Your task to perform on an android device: Show me recent news Image 0: 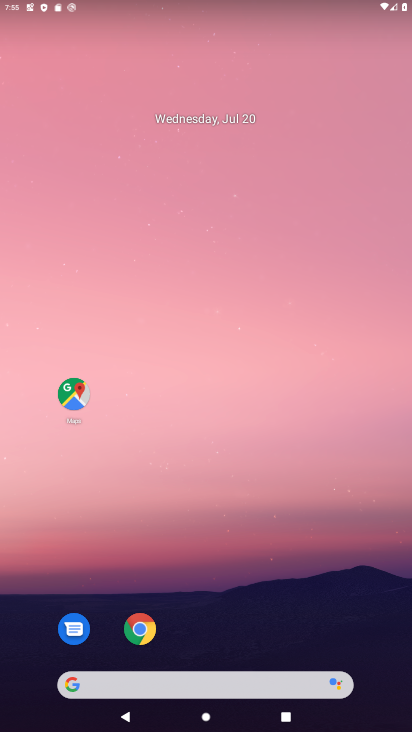
Step 0: drag from (185, 645) to (179, 169)
Your task to perform on an android device: Show me recent news Image 1: 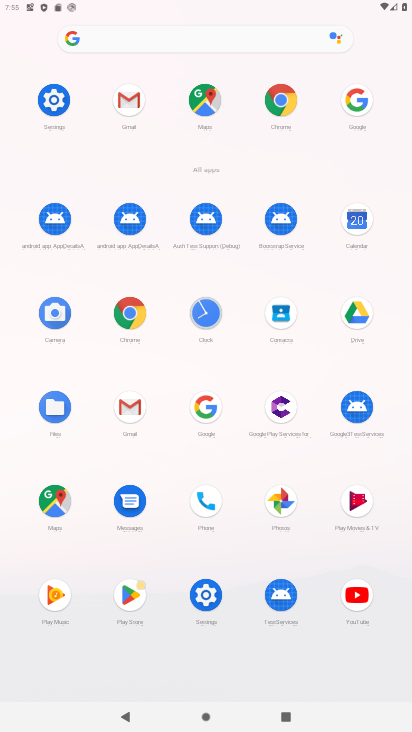
Step 1: click (195, 418)
Your task to perform on an android device: Show me recent news Image 2: 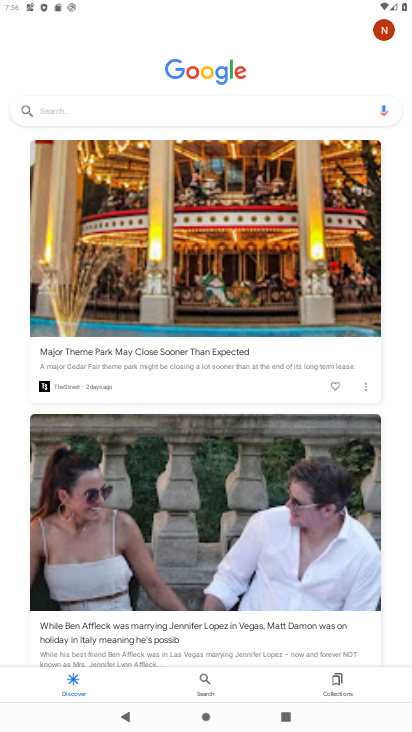
Step 2: click (159, 110)
Your task to perform on an android device: Show me recent news Image 3: 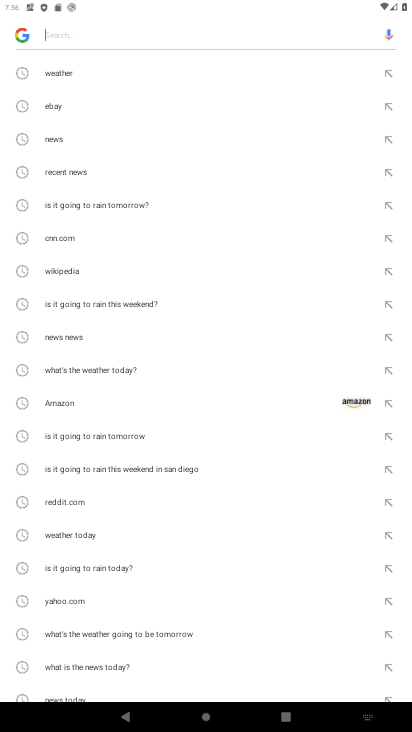
Step 3: click (57, 169)
Your task to perform on an android device: Show me recent news Image 4: 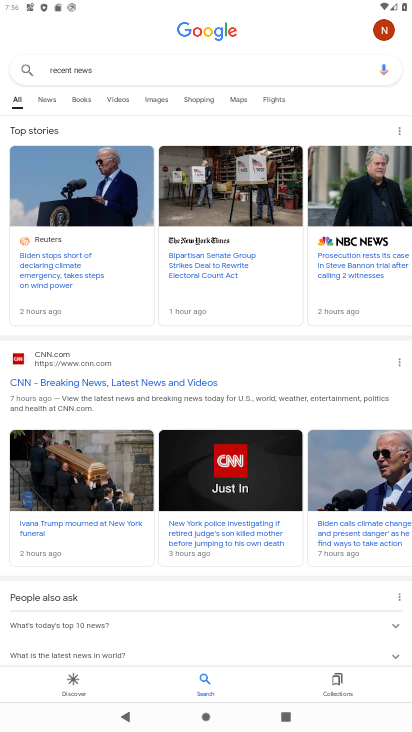
Step 4: task complete